Your task to perform on an android device: read, delete, or share a saved page in the chrome app Image 0: 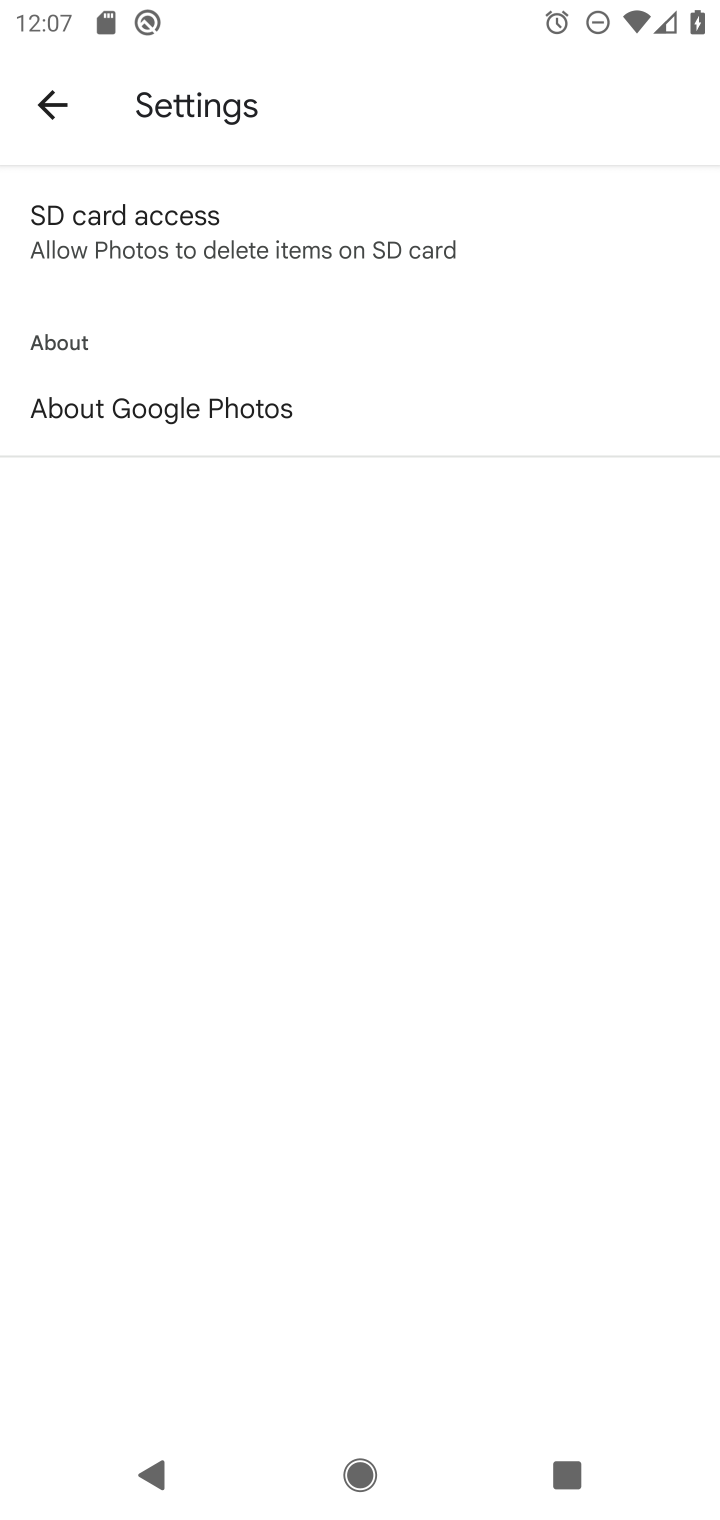
Step 0: press home button
Your task to perform on an android device: read, delete, or share a saved page in the chrome app Image 1: 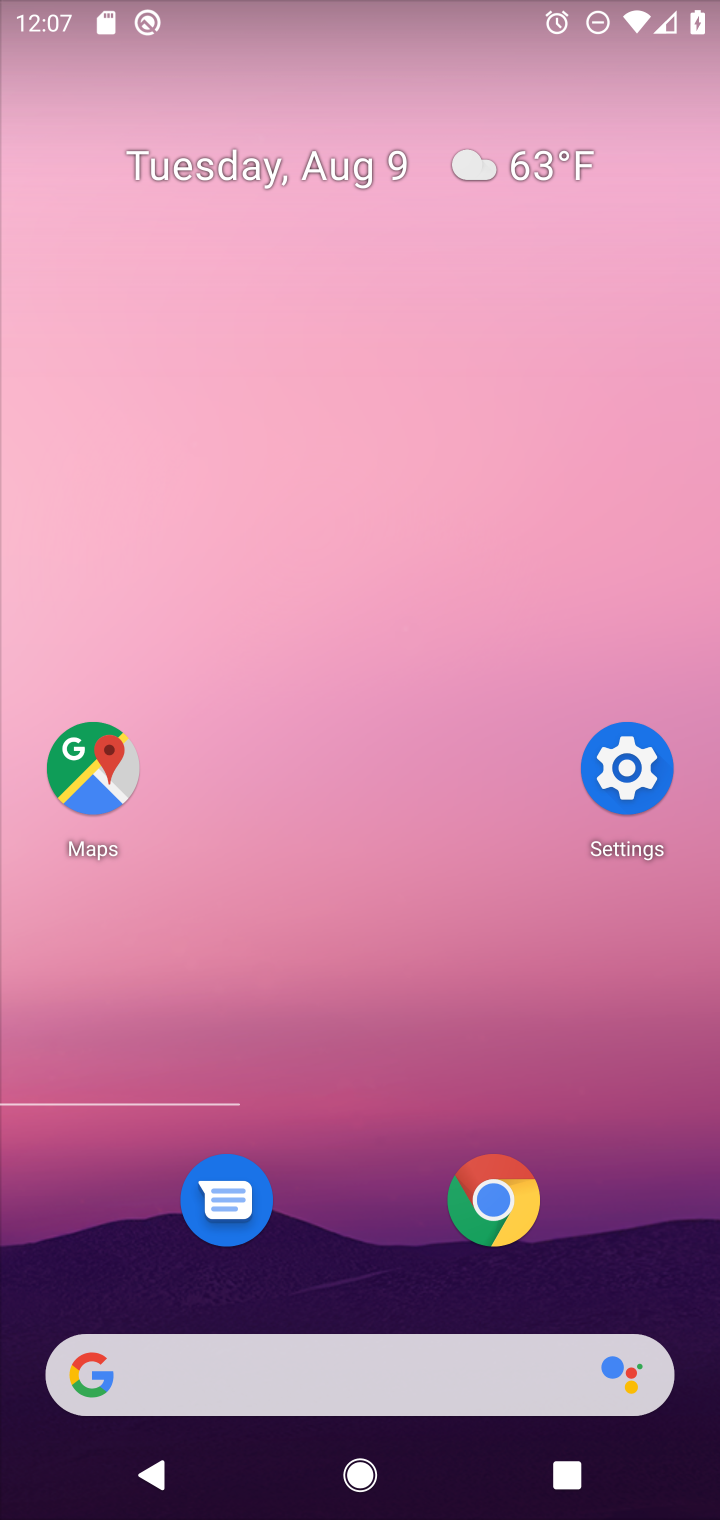
Step 1: click (474, 1206)
Your task to perform on an android device: read, delete, or share a saved page in the chrome app Image 2: 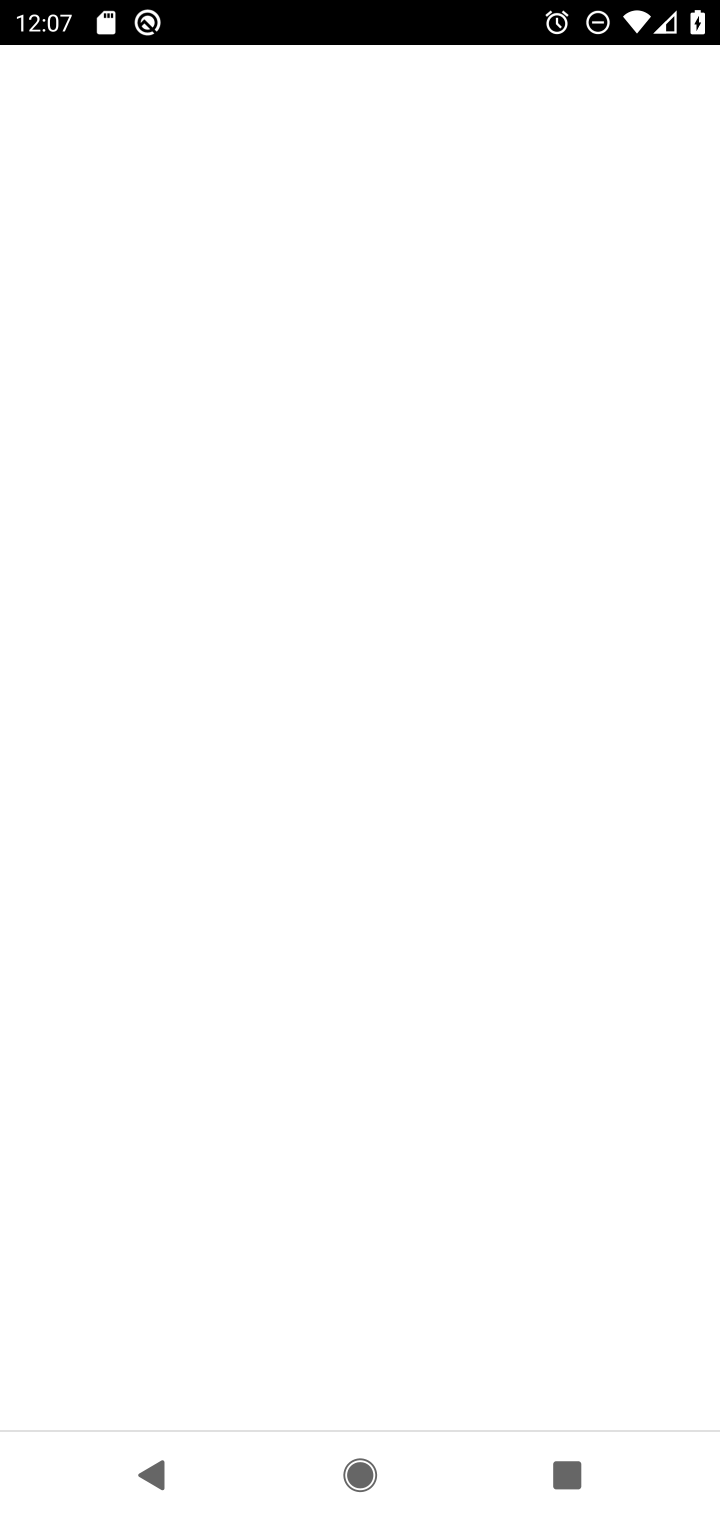
Step 2: click (474, 1206)
Your task to perform on an android device: read, delete, or share a saved page in the chrome app Image 3: 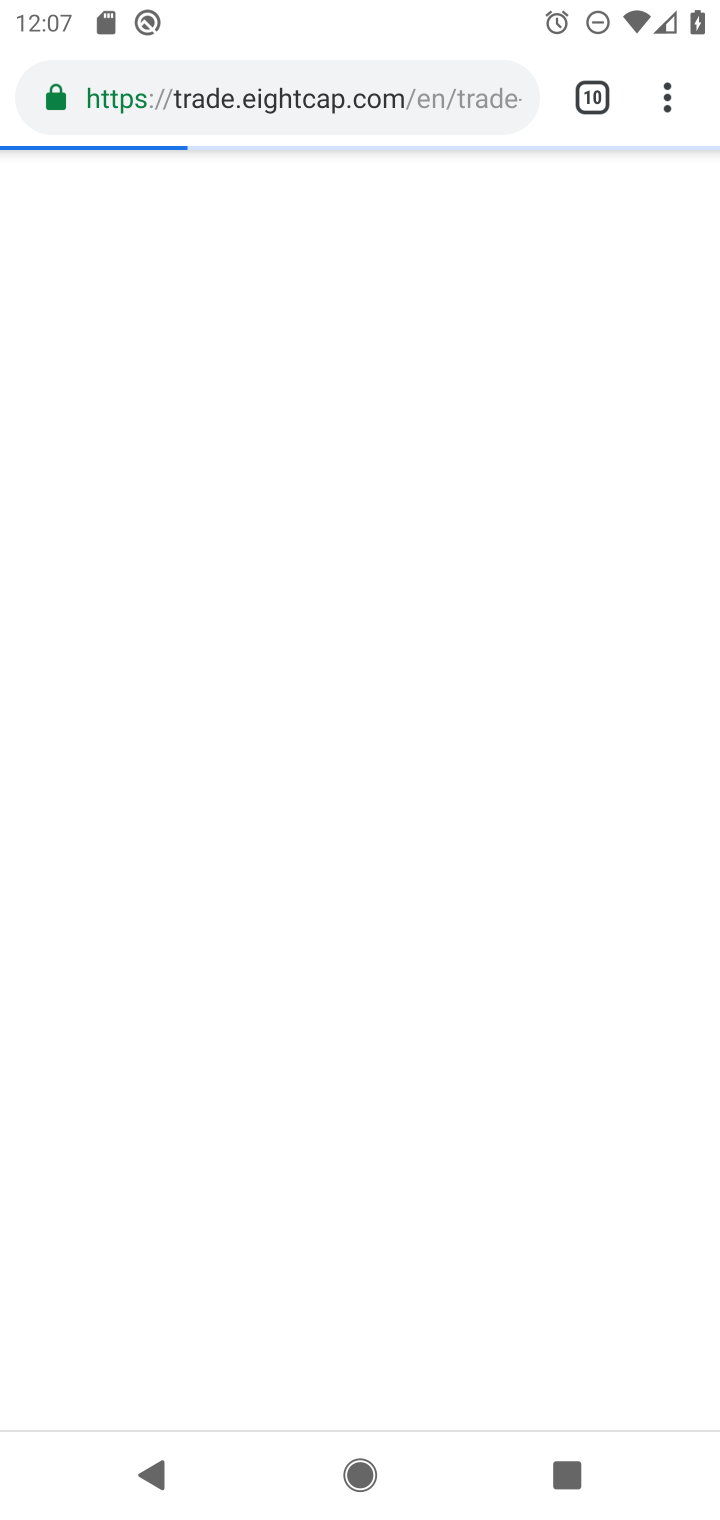
Step 3: drag from (668, 104) to (358, 756)
Your task to perform on an android device: read, delete, or share a saved page in the chrome app Image 4: 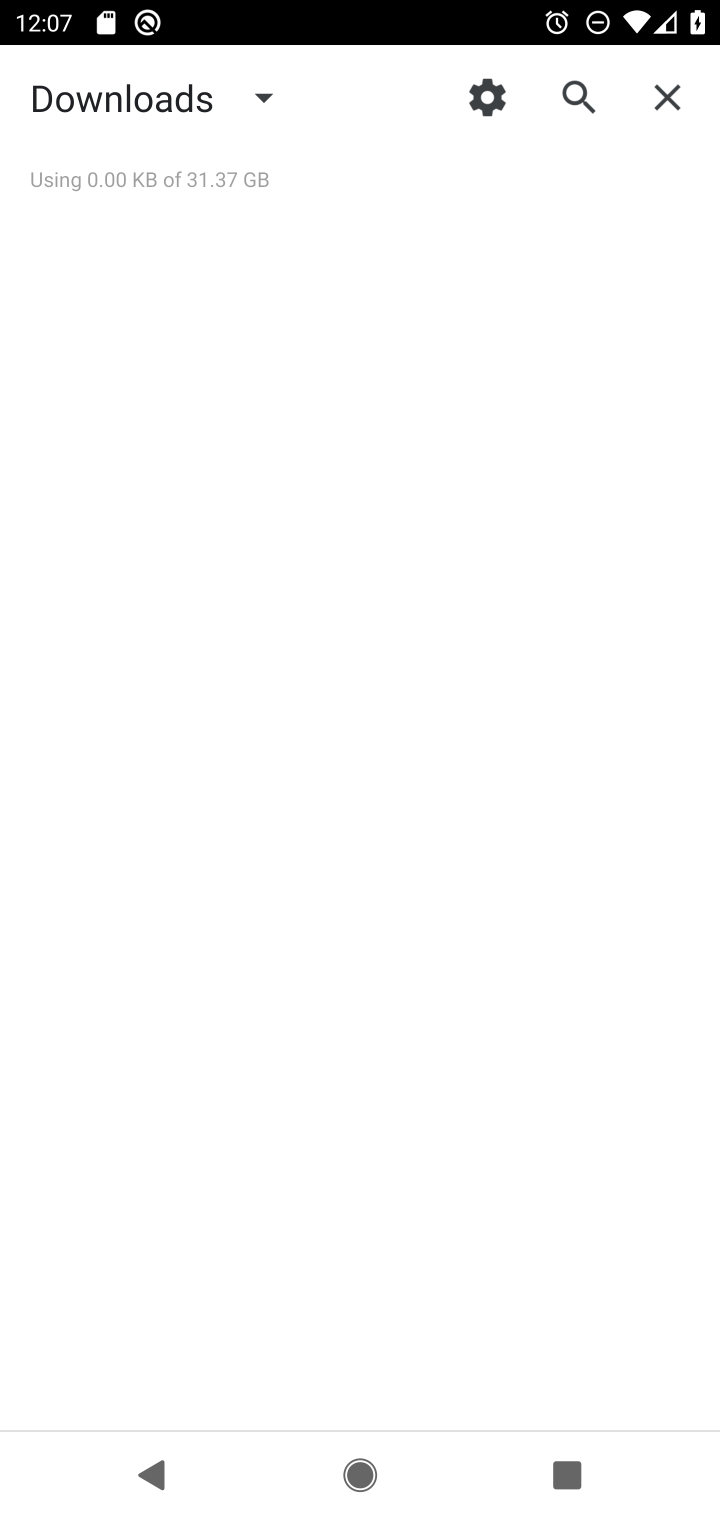
Step 4: click (273, 101)
Your task to perform on an android device: read, delete, or share a saved page in the chrome app Image 5: 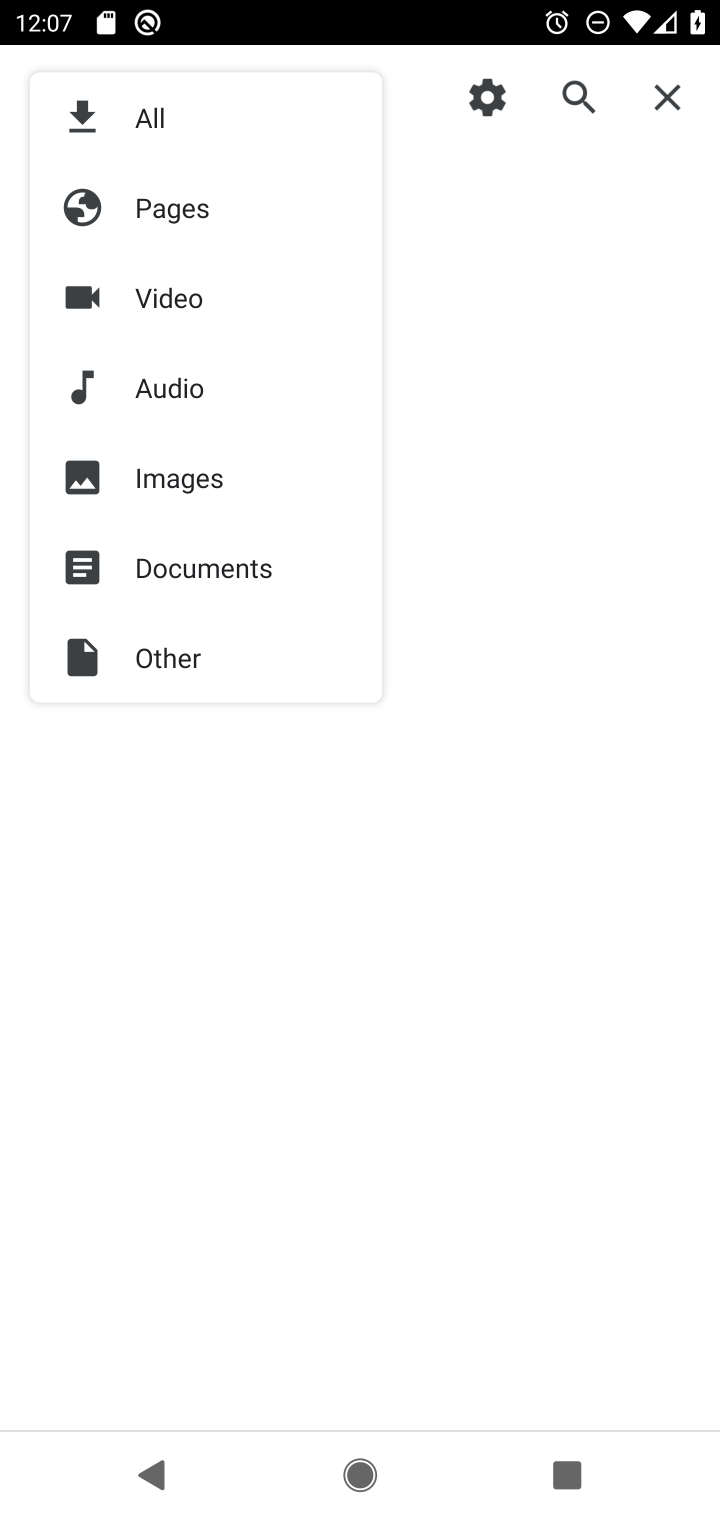
Step 5: click (168, 205)
Your task to perform on an android device: read, delete, or share a saved page in the chrome app Image 6: 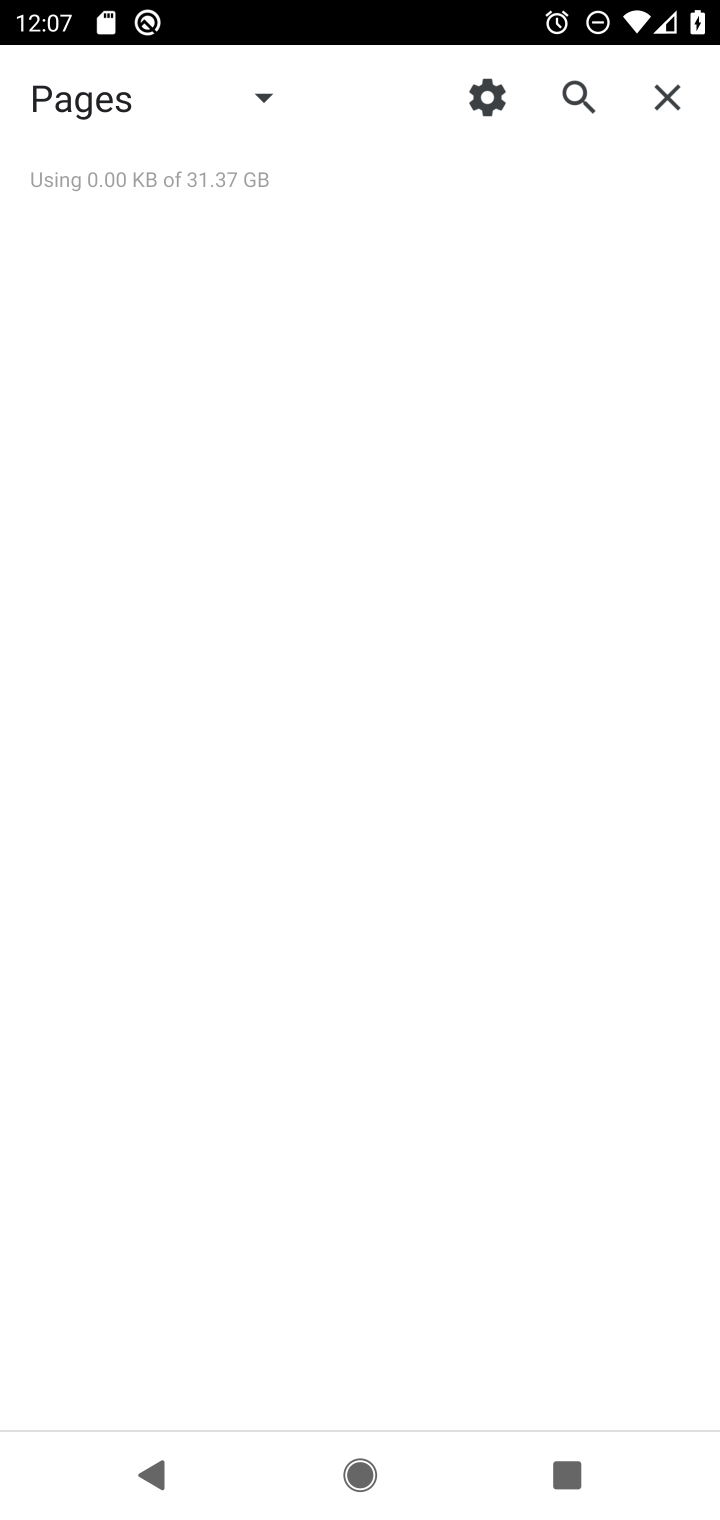
Step 6: task complete